Your task to perform on an android device: What is the news today? Image 0: 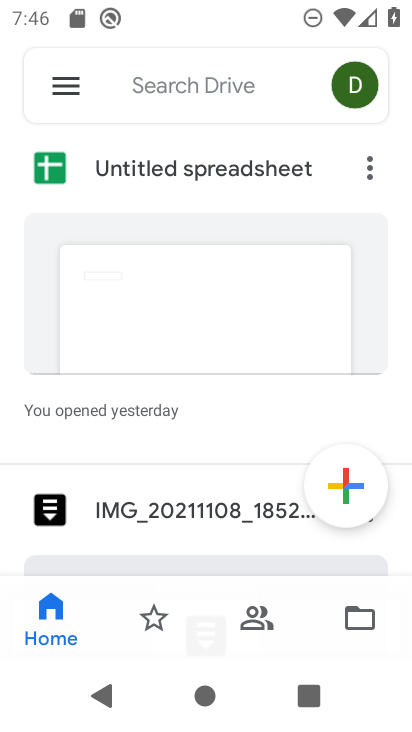
Step 0: press home button
Your task to perform on an android device: What is the news today? Image 1: 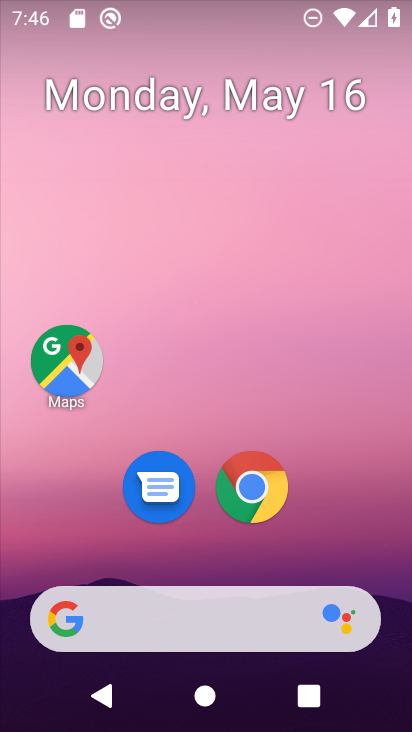
Step 1: click (214, 619)
Your task to perform on an android device: What is the news today? Image 2: 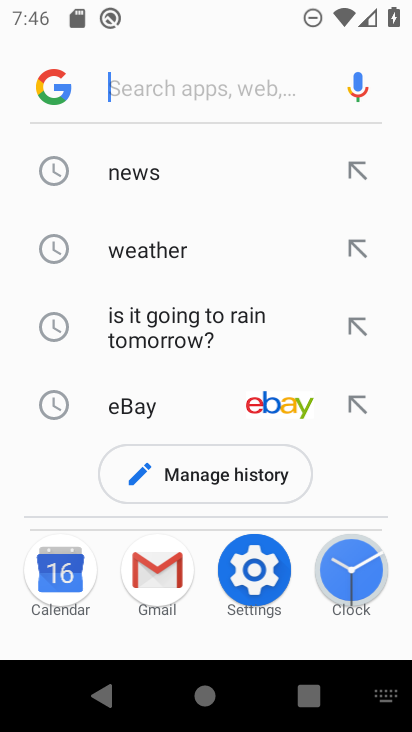
Step 2: click (143, 174)
Your task to perform on an android device: What is the news today? Image 3: 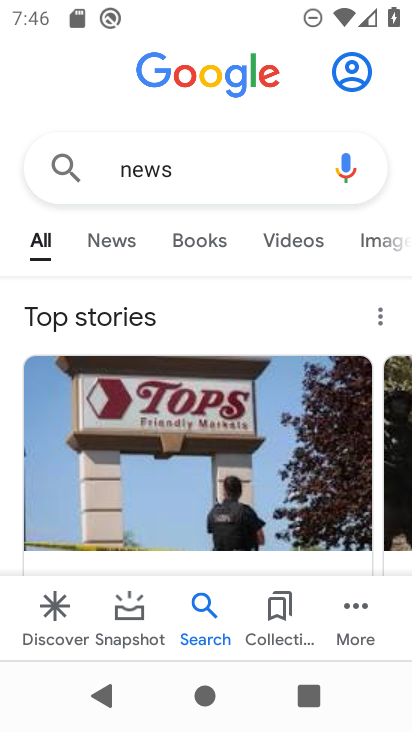
Step 3: task complete